Your task to perform on an android device: check google app version Image 0: 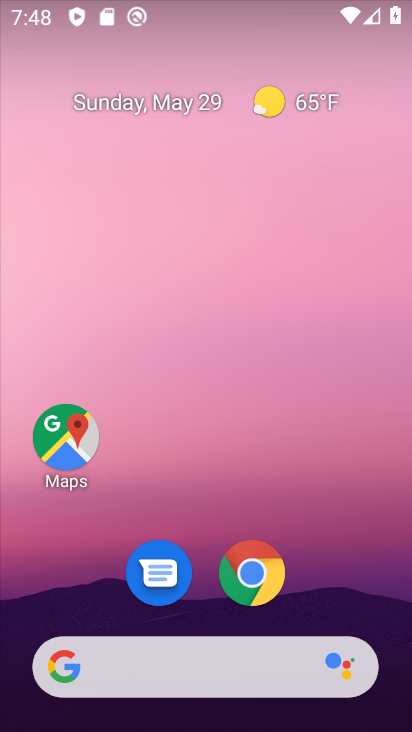
Step 0: drag from (184, 618) to (196, 259)
Your task to perform on an android device: check google app version Image 1: 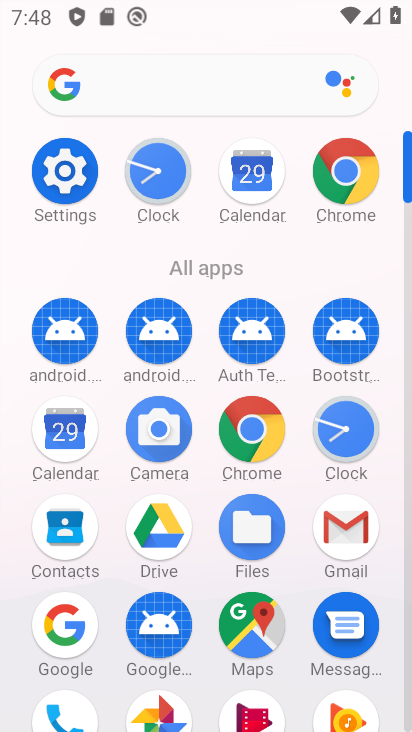
Step 1: drag from (108, 571) to (109, 386)
Your task to perform on an android device: check google app version Image 2: 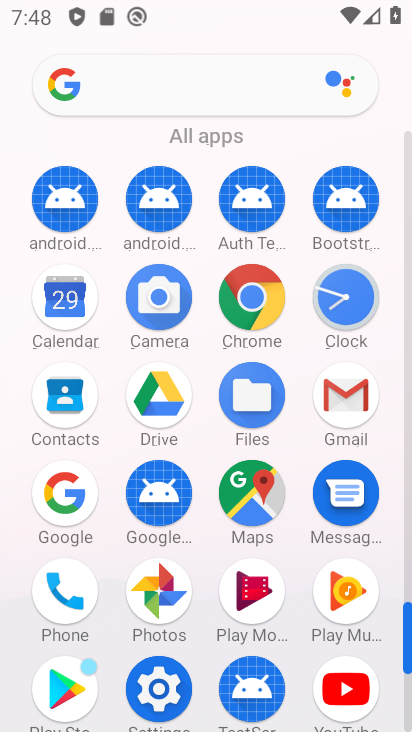
Step 2: click (73, 523)
Your task to perform on an android device: check google app version Image 3: 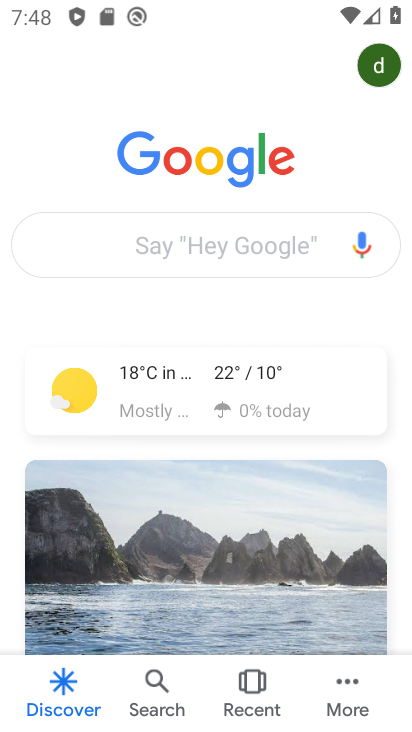
Step 3: click (345, 688)
Your task to perform on an android device: check google app version Image 4: 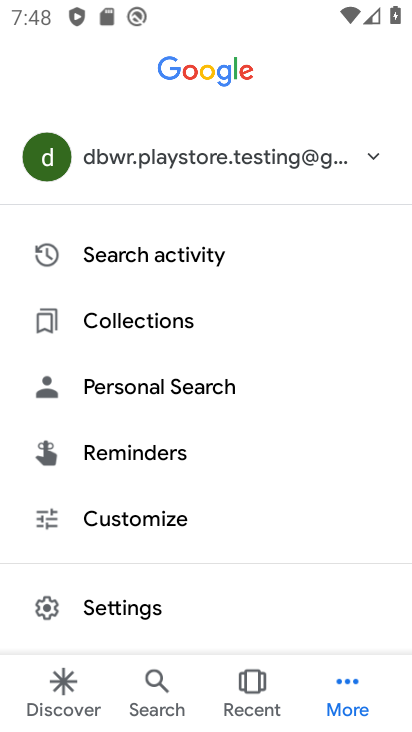
Step 4: click (149, 616)
Your task to perform on an android device: check google app version Image 5: 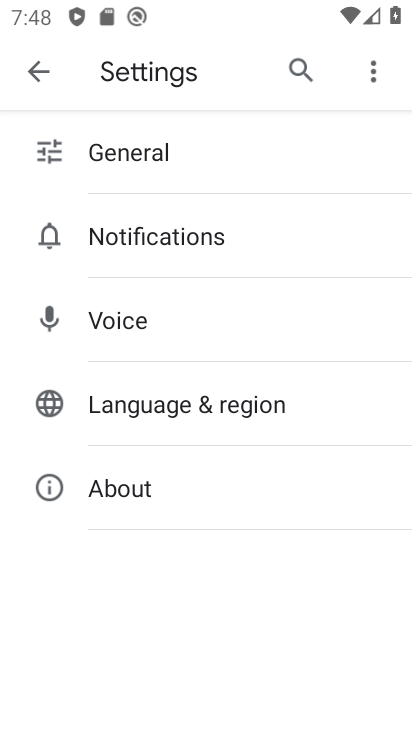
Step 5: click (144, 482)
Your task to perform on an android device: check google app version Image 6: 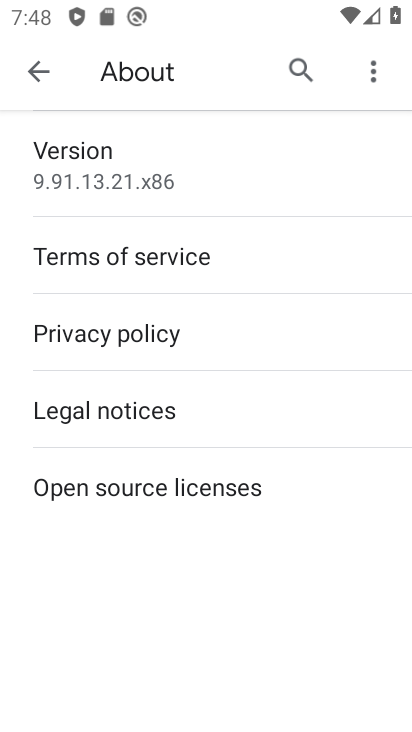
Step 6: click (112, 196)
Your task to perform on an android device: check google app version Image 7: 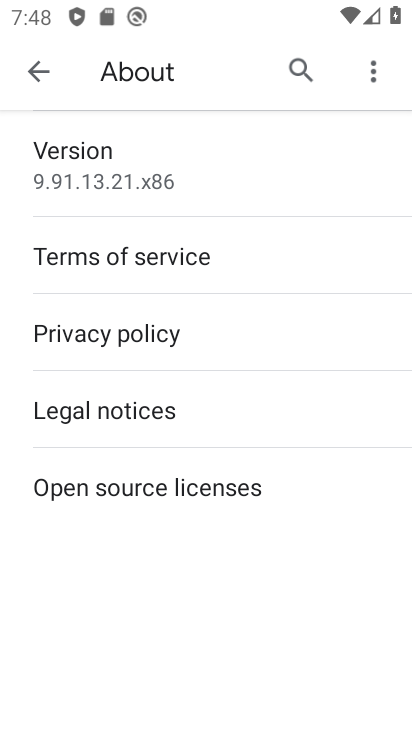
Step 7: click (168, 194)
Your task to perform on an android device: check google app version Image 8: 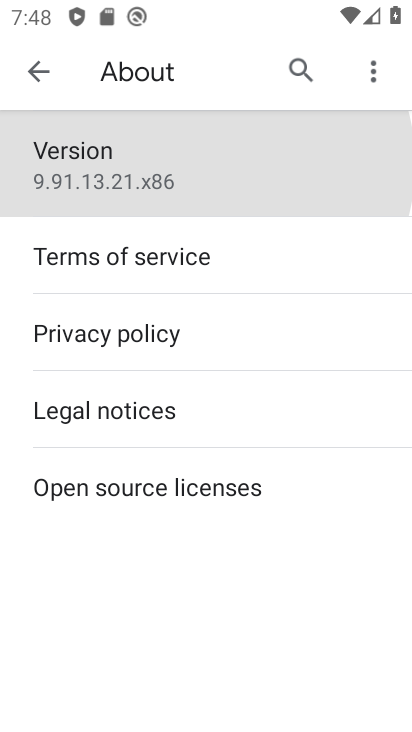
Step 8: click (166, 181)
Your task to perform on an android device: check google app version Image 9: 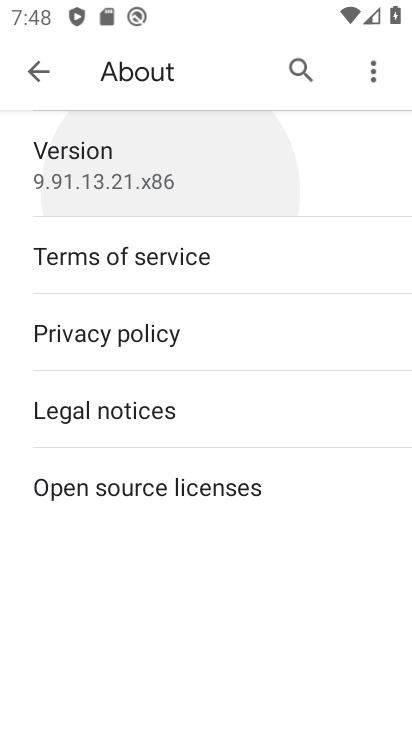
Step 9: click (166, 181)
Your task to perform on an android device: check google app version Image 10: 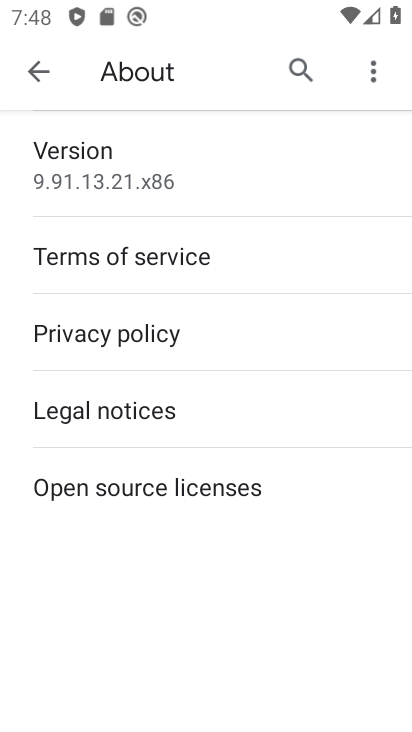
Step 10: task complete